Your task to perform on an android device: Go to Google Image 0: 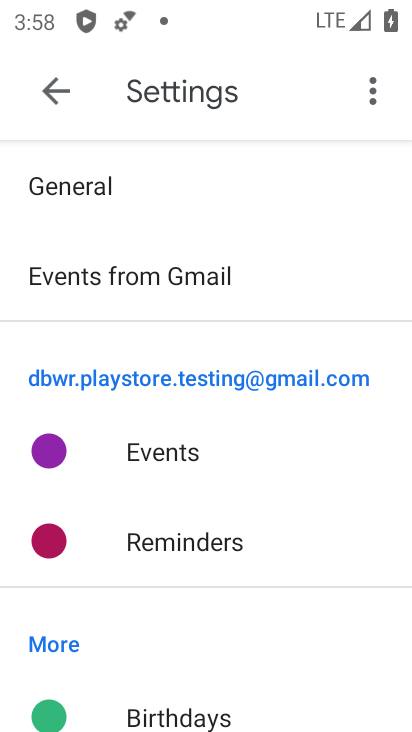
Step 0: press home button
Your task to perform on an android device: Go to Google Image 1: 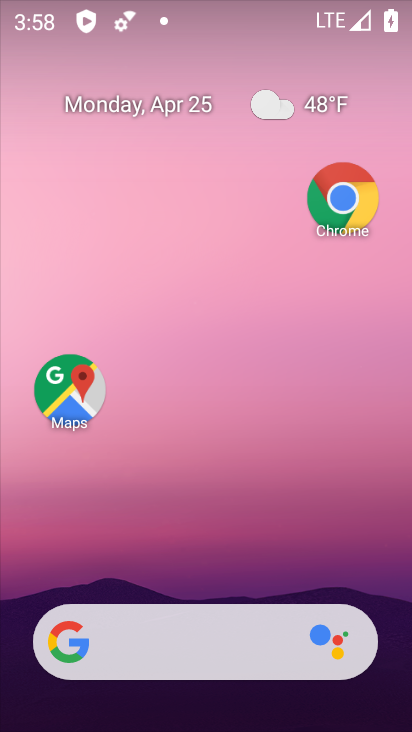
Step 1: drag from (170, 648) to (330, 171)
Your task to perform on an android device: Go to Google Image 2: 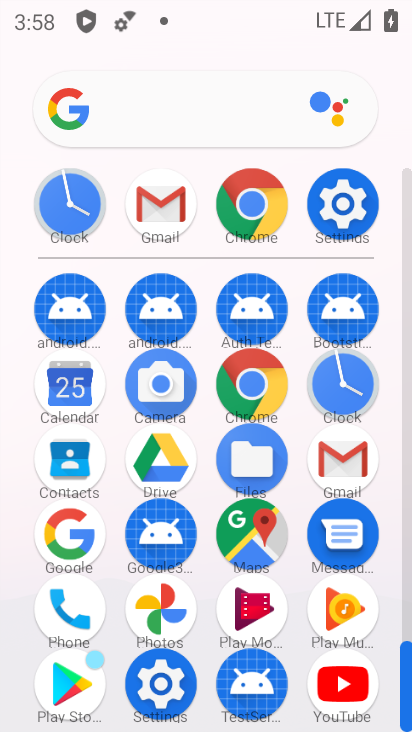
Step 2: click (69, 538)
Your task to perform on an android device: Go to Google Image 3: 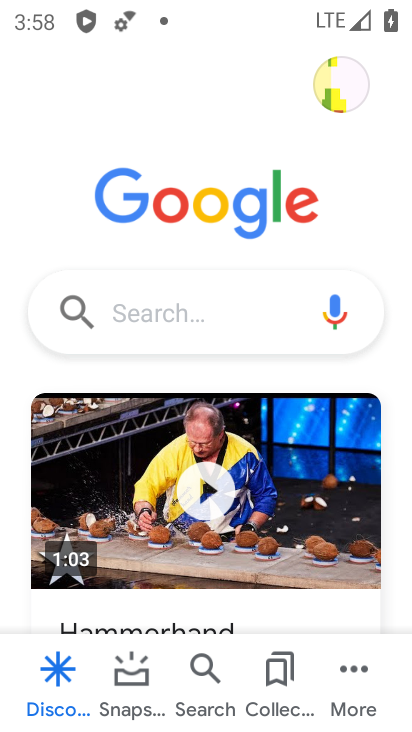
Step 3: task complete